Your task to perform on an android device: Clear all items from cart on walmart.com. Search for panasonic triple a on walmart.com, select the first entry, add it to the cart, then select checkout. Image 0: 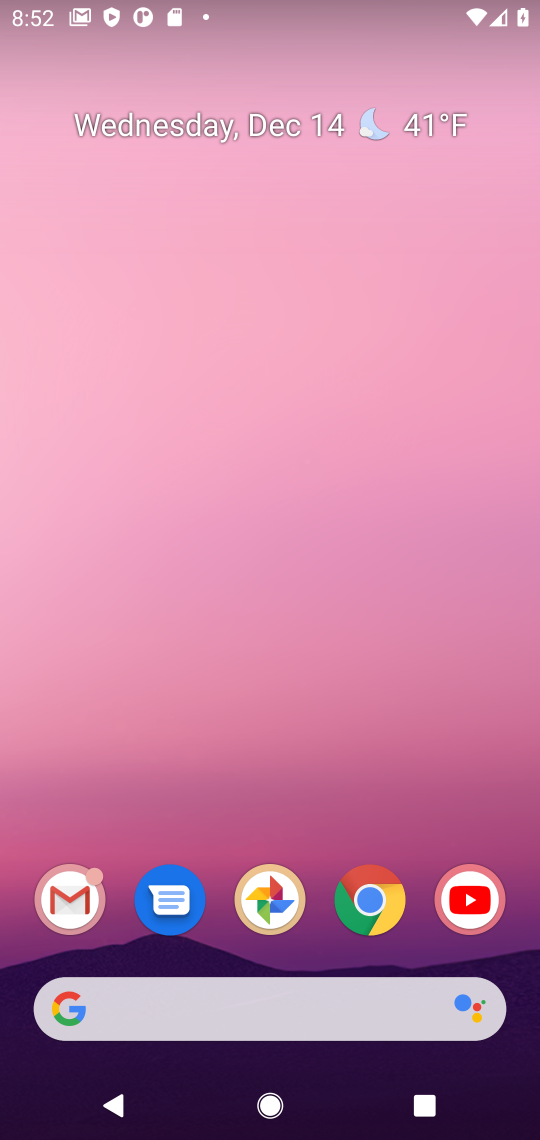
Step 0: click (373, 914)
Your task to perform on an android device: Clear all items from cart on walmart.com. Search for panasonic triple a on walmart.com, select the first entry, add it to the cart, then select checkout. Image 1: 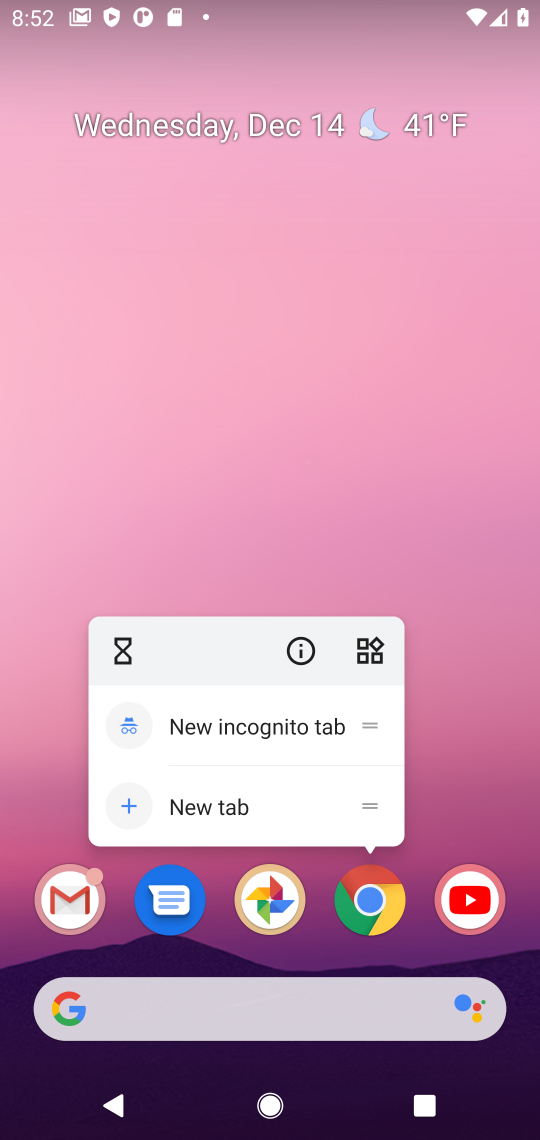
Step 1: click (377, 898)
Your task to perform on an android device: Clear all items from cart on walmart.com. Search for panasonic triple a on walmart.com, select the first entry, add it to the cart, then select checkout. Image 2: 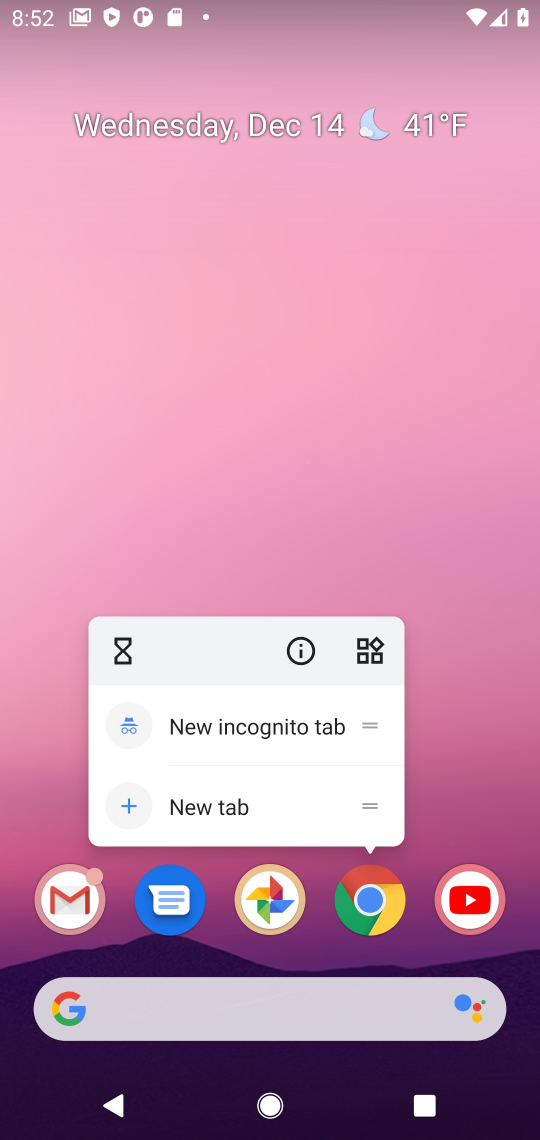
Step 2: click (377, 897)
Your task to perform on an android device: Clear all items from cart on walmart.com. Search for panasonic triple a on walmart.com, select the first entry, add it to the cart, then select checkout. Image 3: 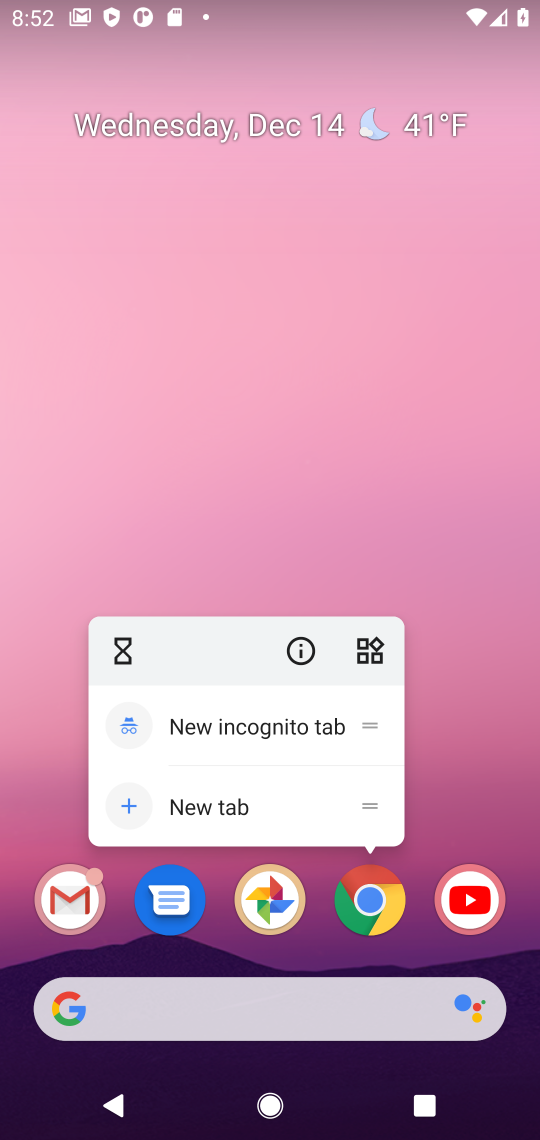
Step 3: click (384, 906)
Your task to perform on an android device: Clear all items from cart on walmart.com. Search for panasonic triple a on walmart.com, select the first entry, add it to the cart, then select checkout. Image 4: 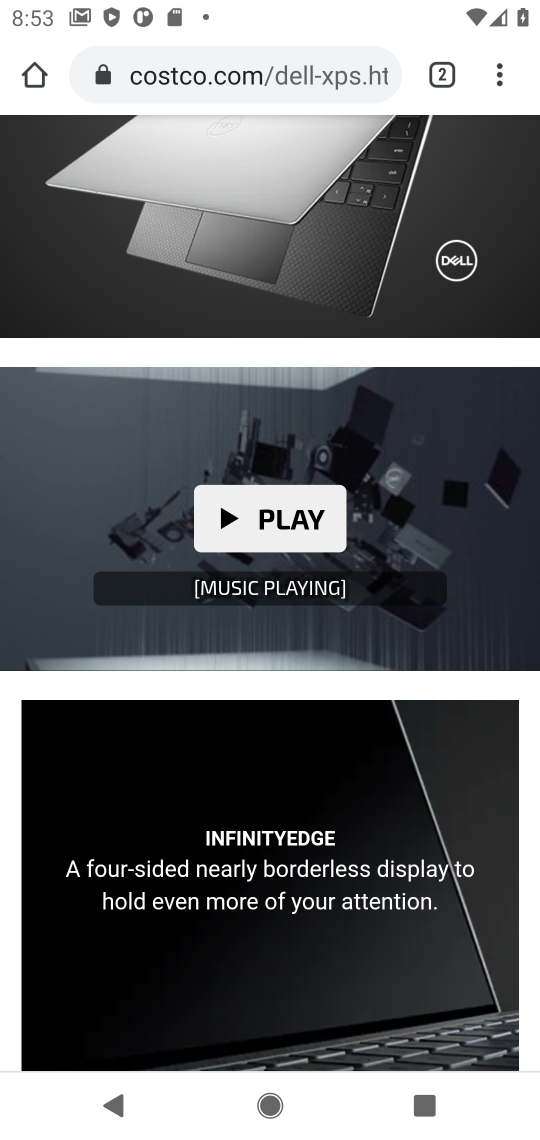
Step 4: click (221, 67)
Your task to perform on an android device: Clear all items from cart on walmart.com. Search for panasonic triple a on walmart.com, select the first entry, add it to the cart, then select checkout. Image 5: 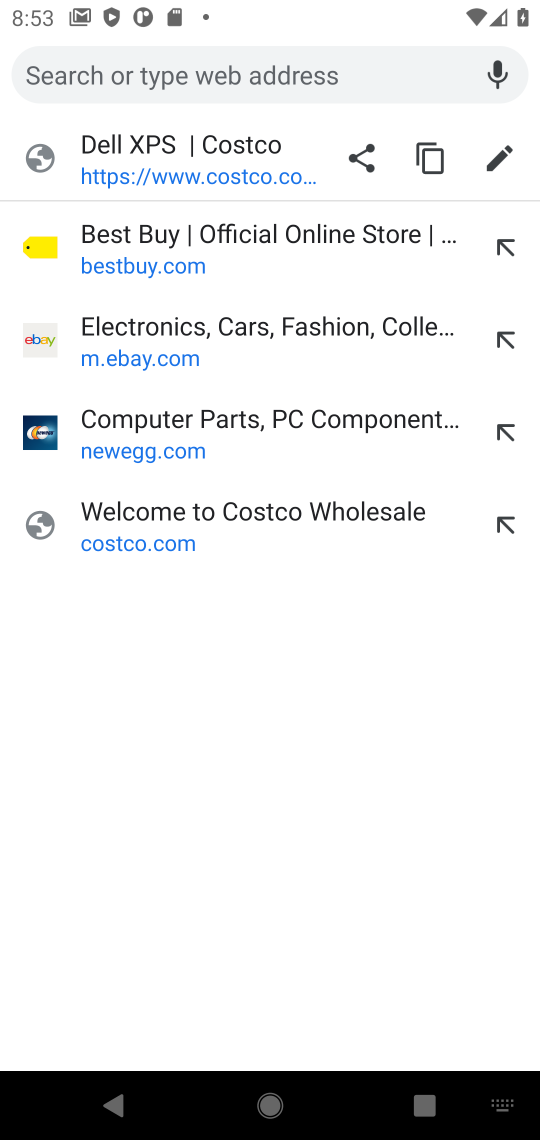
Step 5: type "walmart.com"
Your task to perform on an android device: Clear all items from cart on walmart.com. Search for panasonic triple a on walmart.com, select the first entry, add it to the cart, then select checkout. Image 6: 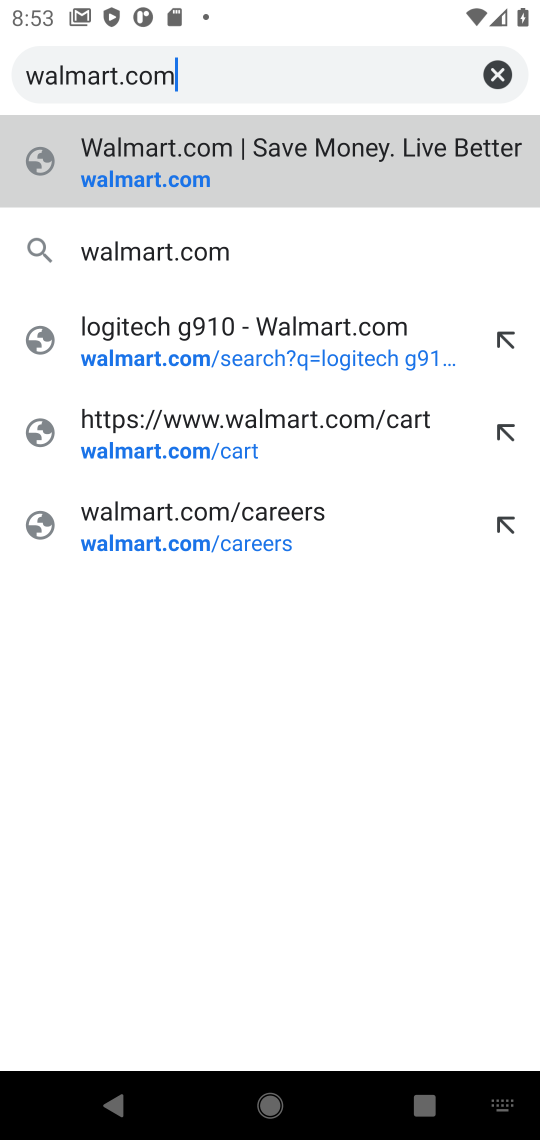
Step 6: click (143, 197)
Your task to perform on an android device: Clear all items from cart on walmart.com. Search for panasonic triple a on walmart.com, select the first entry, add it to the cart, then select checkout. Image 7: 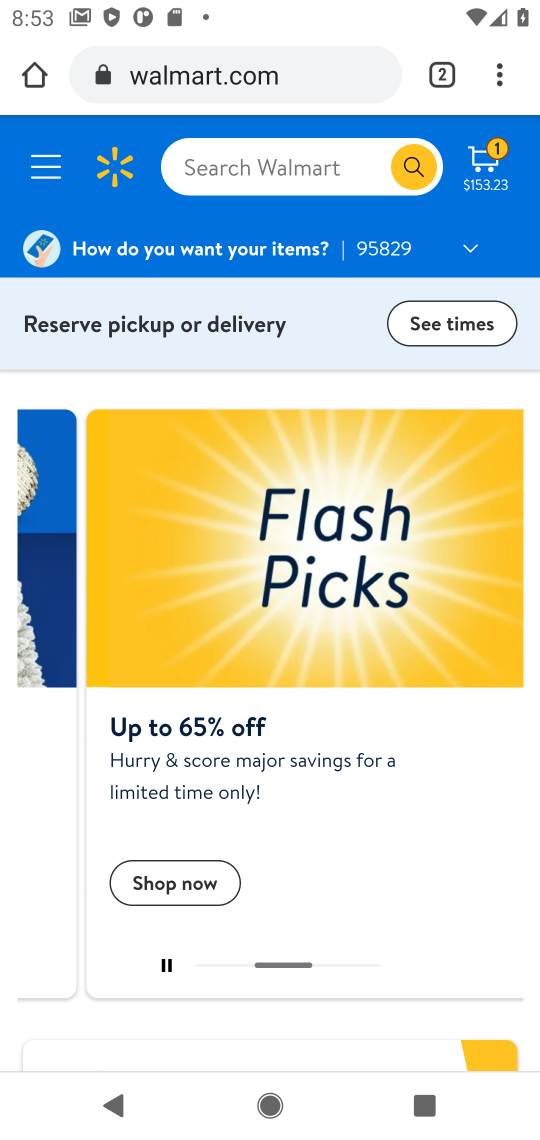
Step 7: click (486, 180)
Your task to perform on an android device: Clear all items from cart on walmart.com. Search for panasonic triple a on walmart.com, select the first entry, add it to the cart, then select checkout. Image 8: 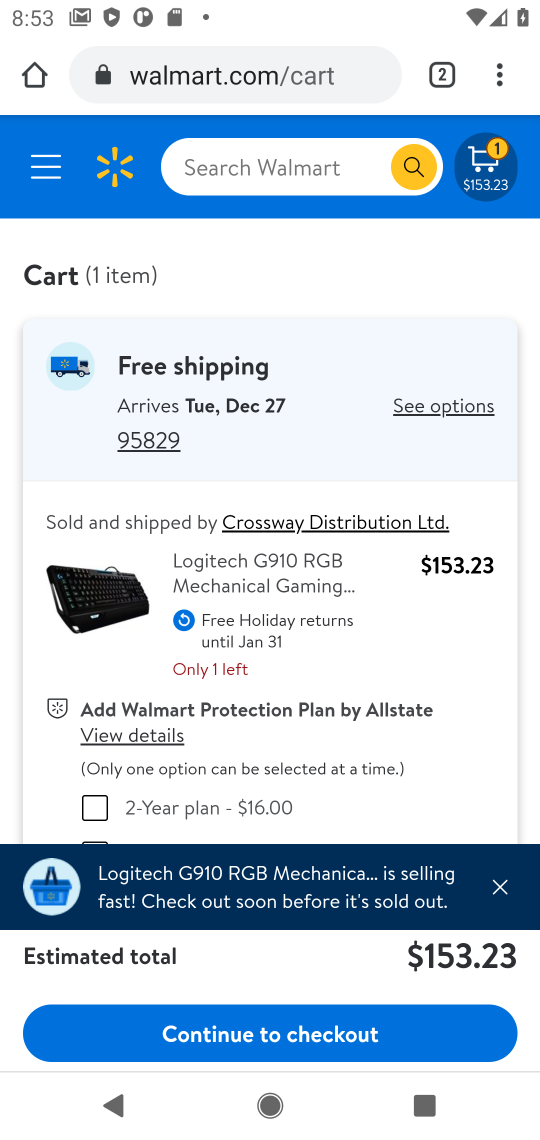
Step 8: drag from (276, 650) to (262, 215)
Your task to perform on an android device: Clear all items from cart on walmart.com. Search for panasonic triple a on walmart.com, select the first entry, add it to the cart, then select checkout. Image 9: 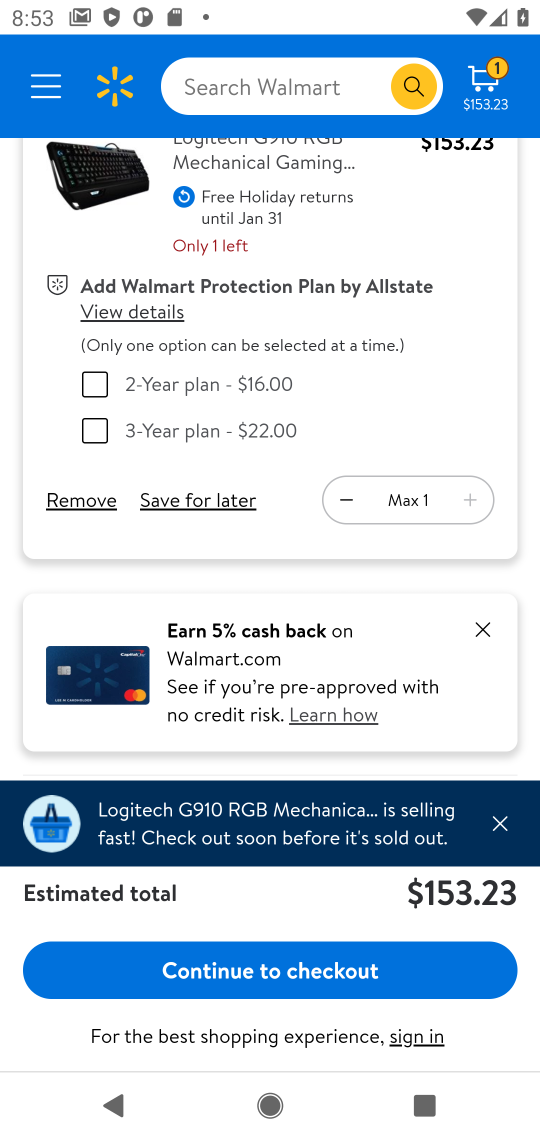
Step 9: click (45, 503)
Your task to perform on an android device: Clear all items from cart on walmart.com. Search for panasonic triple a on walmart.com, select the first entry, add it to the cart, then select checkout. Image 10: 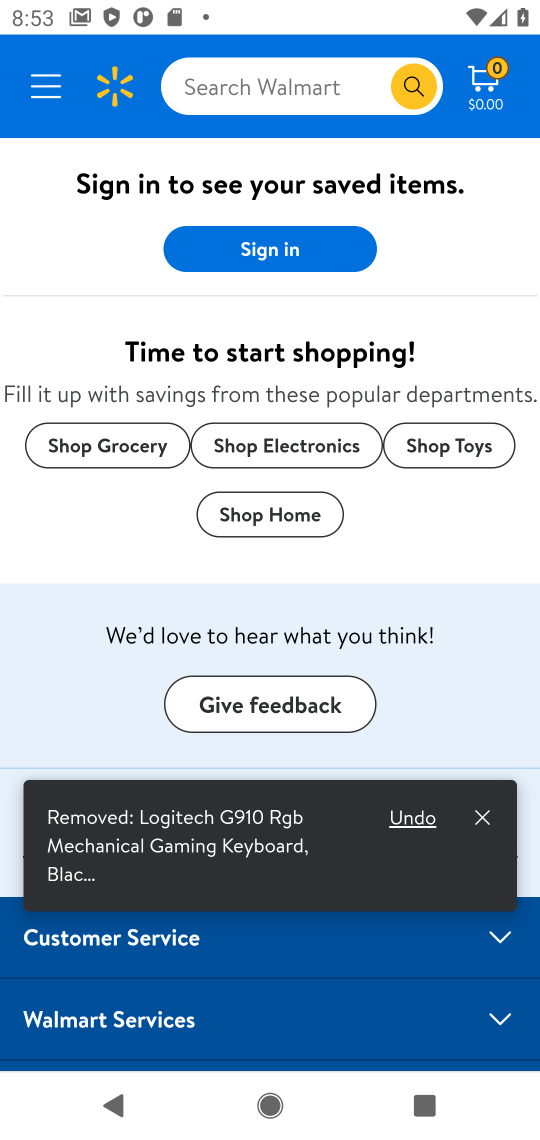
Step 10: drag from (330, 593) to (249, 860)
Your task to perform on an android device: Clear all items from cart on walmart.com. Search for panasonic triple a on walmart.com, select the first entry, add it to the cart, then select checkout. Image 11: 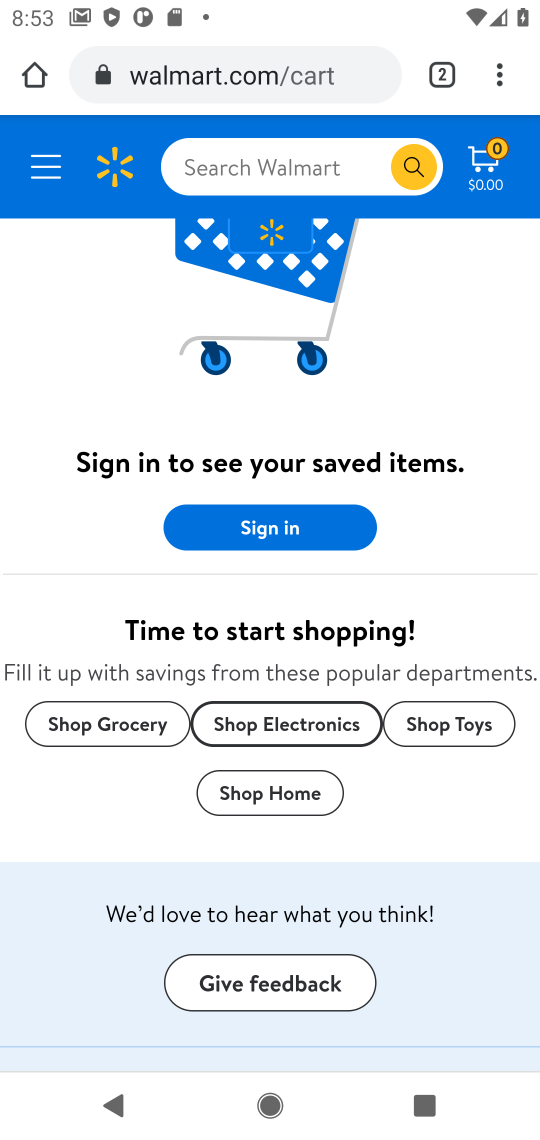
Step 11: click (309, 177)
Your task to perform on an android device: Clear all items from cart on walmart.com. Search for panasonic triple a on walmart.com, select the first entry, add it to the cart, then select checkout. Image 12: 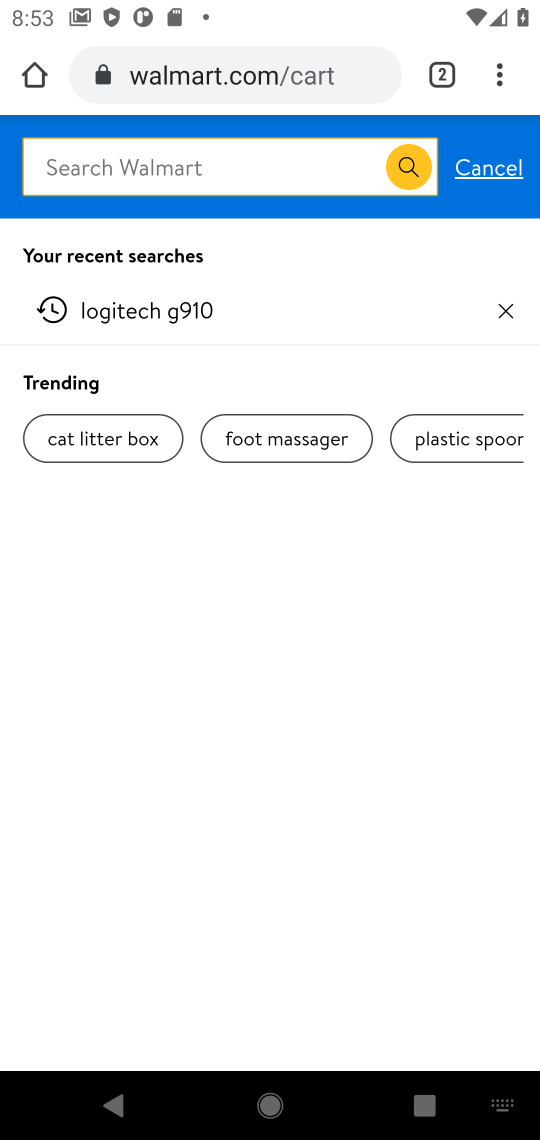
Step 12: type "panasonic triple a"
Your task to perform on an android device: Clear all items from cart on walmart.com. Search for panasonic triple a on walmart.com, select the first entry, add it to the cart, then select checkout. Image 13: 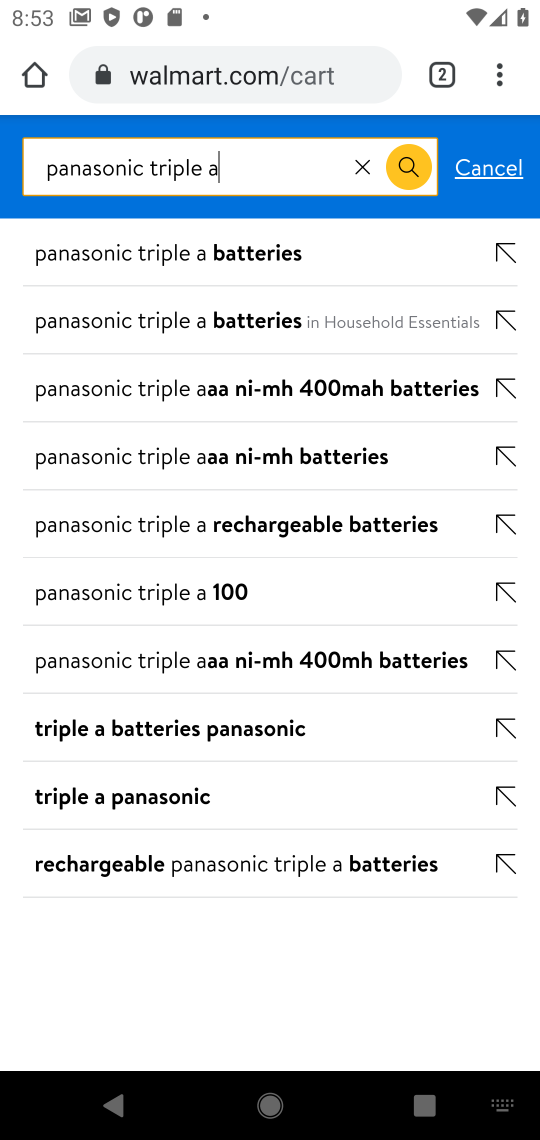
Step 13: click (214, 270)
Your task to perform on an android device: Clear all items from cart on walmart.com. Search for panasonic triple a on walmart.com, select the first entry, add it to the cart, then select checkout. Image 14: 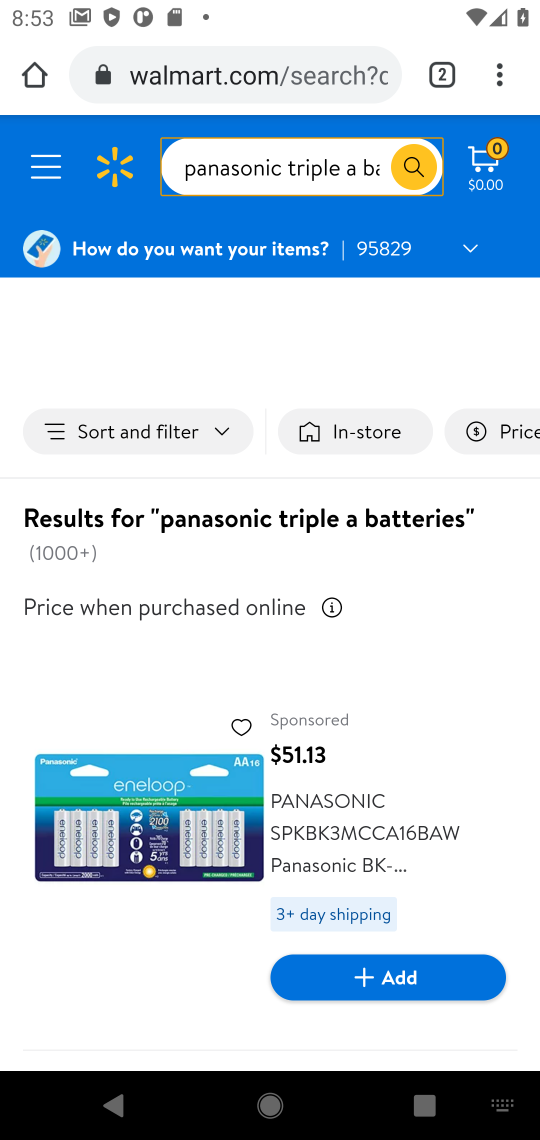
Step 14: task complete